Your task to perform on an android device: delete the emails in spam in the gmail app Image 0: 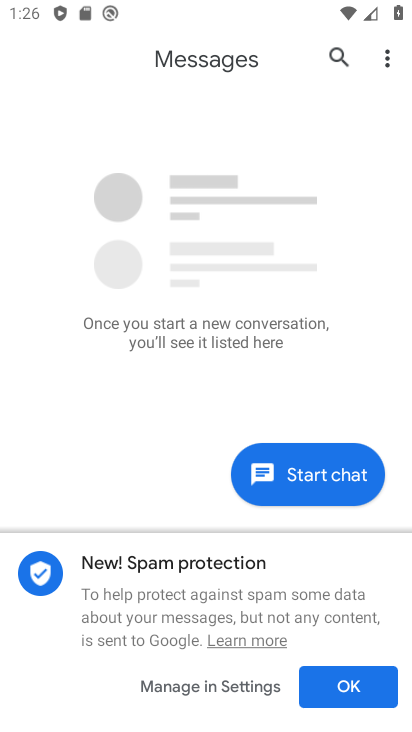
Step 0: press home button
Your task to perform on an android device: delete the emails in spam in the gmail app Image 1: 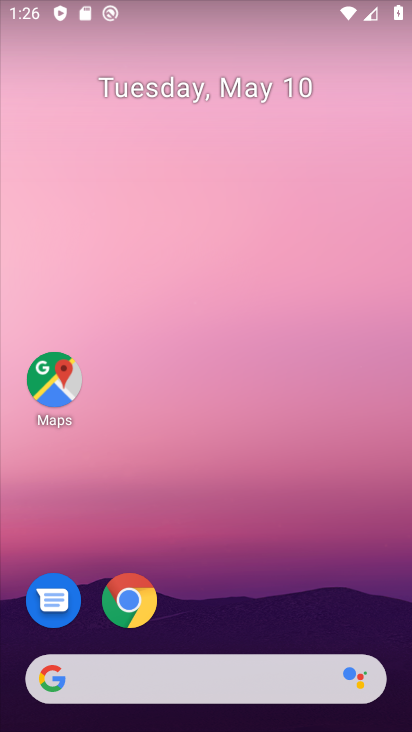
Step 1: drag from (260, 623) to (201, 192)
Your task to perform on an android device: delete the emails in spam in the gmail app Image 2: 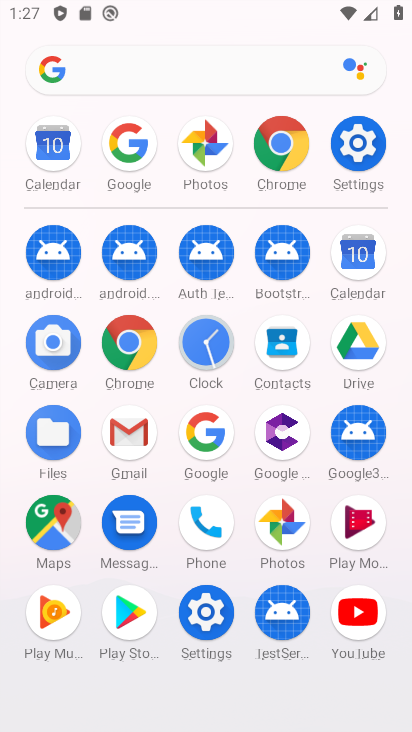
Step 2: click (143, 434)
Your task to perform on an android device: delete the emails in spam in the gmail app Image 3: 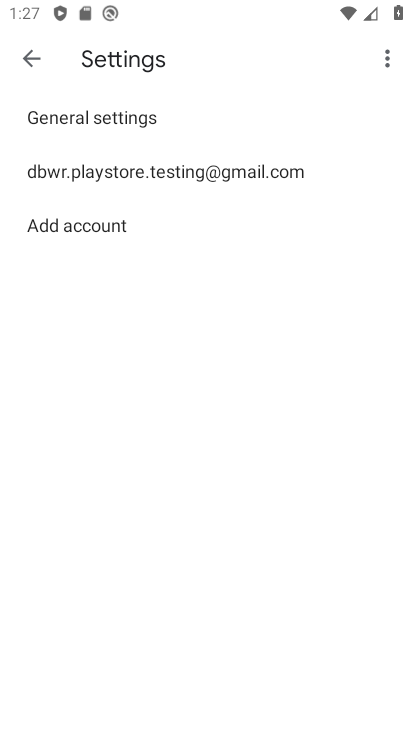
Step 3: click (29, 69)
Your task to perform on an android device: delete the emails in spam in the gmail app Image 4: 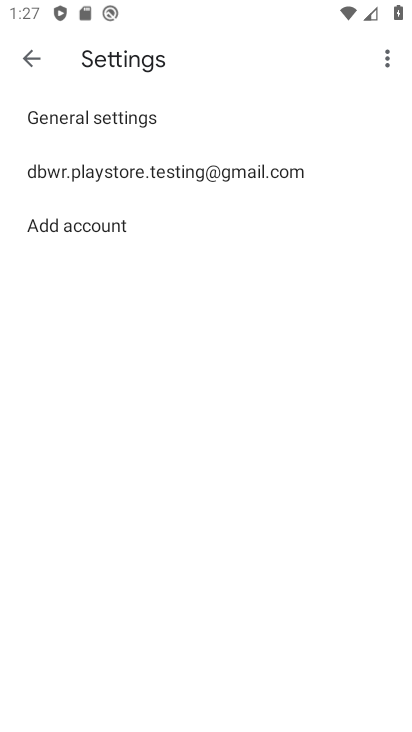
Step 4: click (30, 69)
Your task to perform on an android device: delete the emails in spam in the gmail app Image 5: 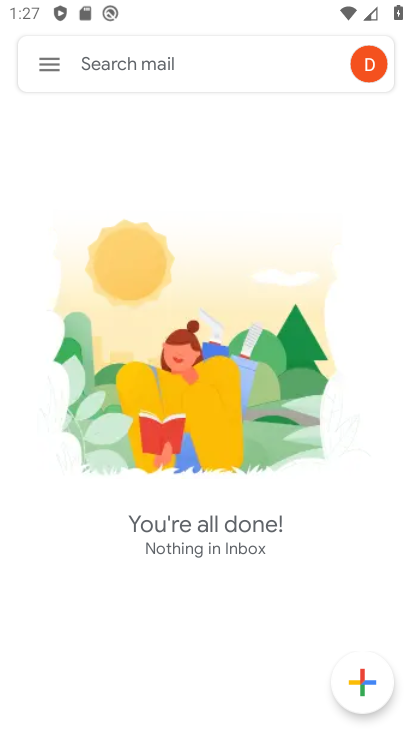
Step 5: click (42, 74)
Your task to perform on an android device: delete the emails in spam in the gmail app Image 6: 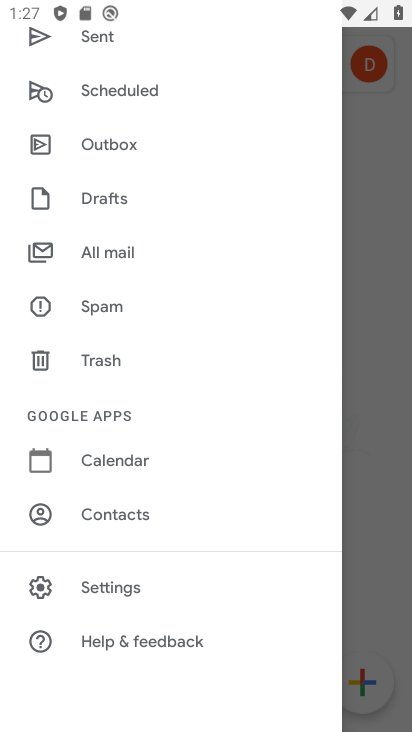
Step 6: click (138, 251)
Your task to perform on an android device: delete the emails in spam in the gmail app Image 7: 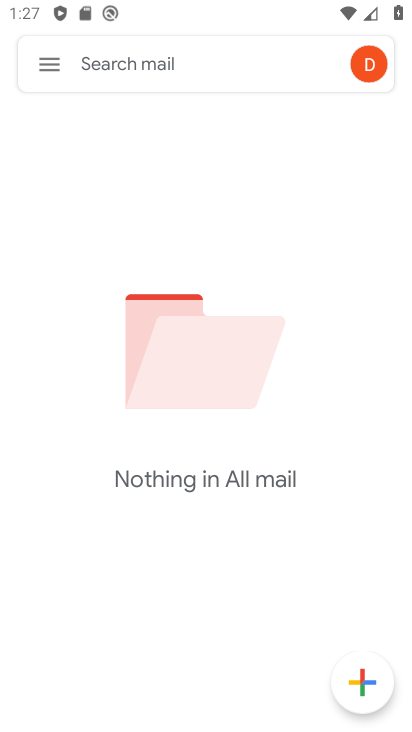
Step 7: task complete